Your task to perform on an android device: Open display settings Image 0: 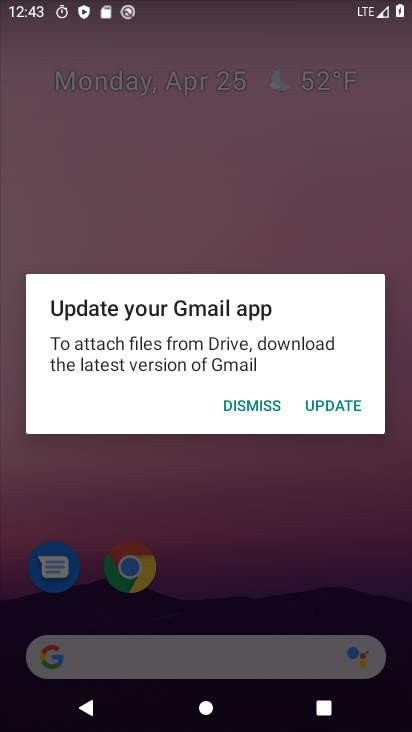
Step 0: press home button
Your task to perform on an android device: Open display settings Image 1: 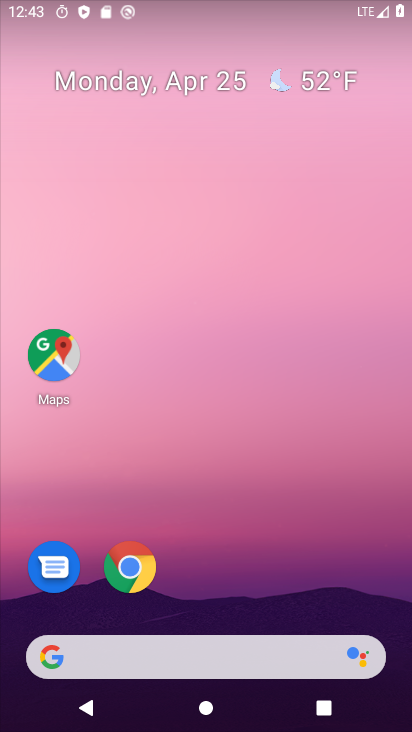
Step 1: drag from (246, 602) to (248, 0)
Your task to perform on an android device: Open display settings Image 2: 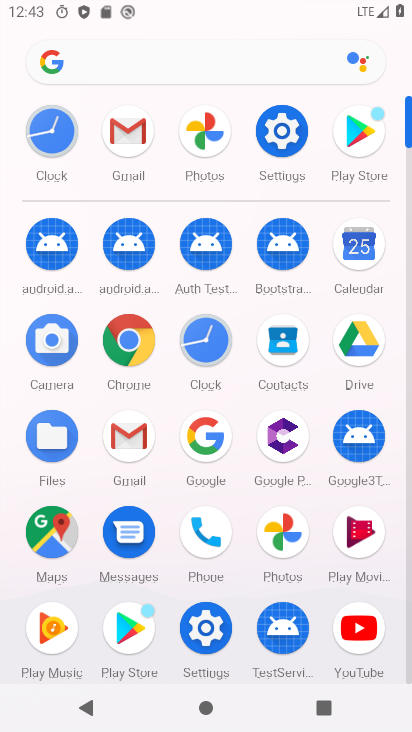
Step 2: click (283, 137)
Your task to perform on an android device: Open display settings Image 3: 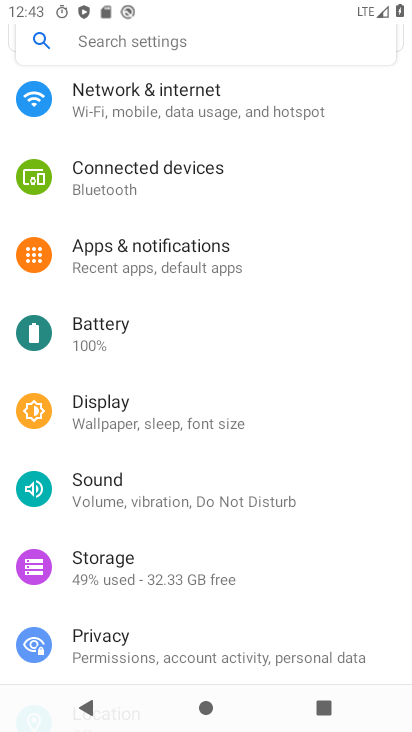
Step 3: click (157, 412)
Your task to perform on an android device: Open display settings Image 4: 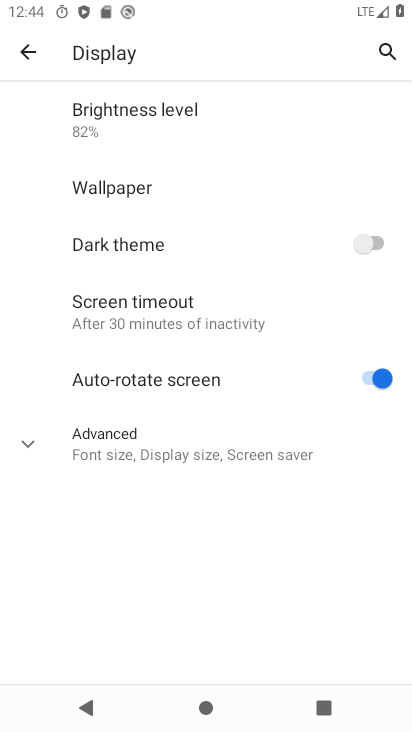
Step 4: task complete